Your task to perform on an android device: change your default location settings in chrome Image 0: 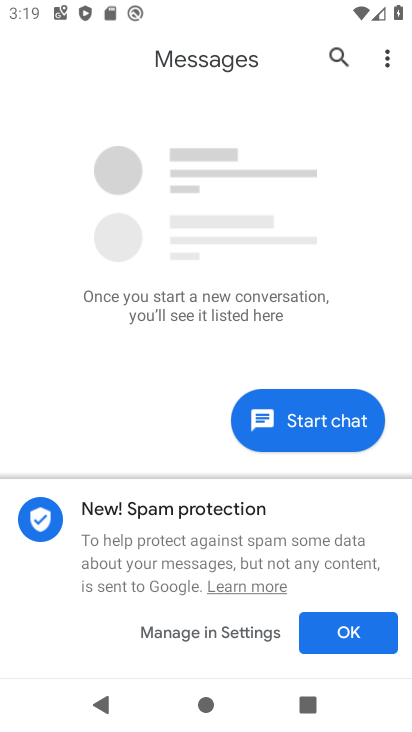
Step 0: press home button
Your task to perform on an android device: change your default location settings in chrome Image 1: 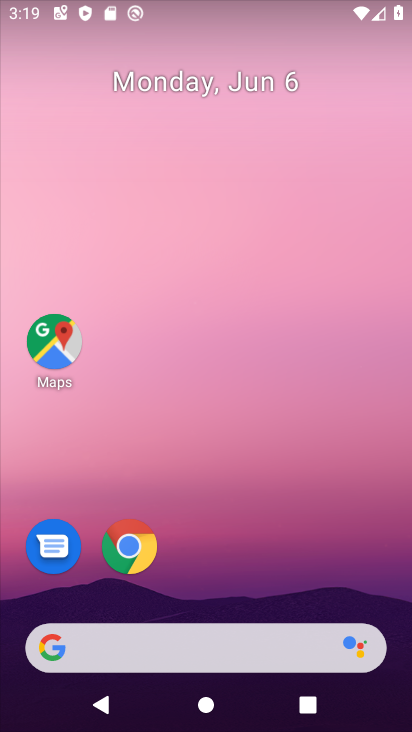
Step 1: click (143, 553)
Your task to perform on an android device: change your default location settings in chrome Image 2: 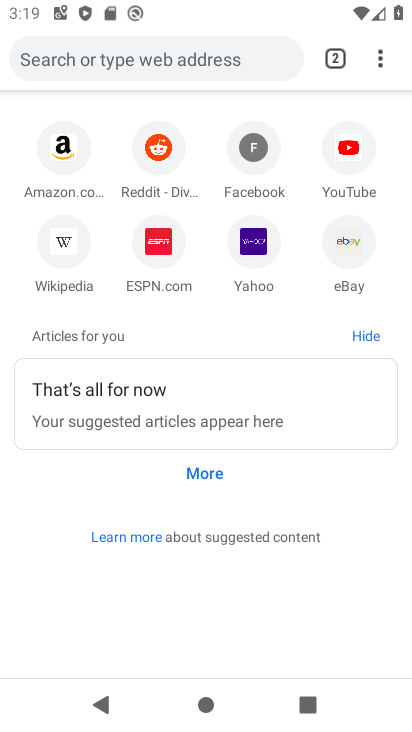
Step 2: press home button
Your task to perform on an android device: change your default location settings in chrome Image 3: 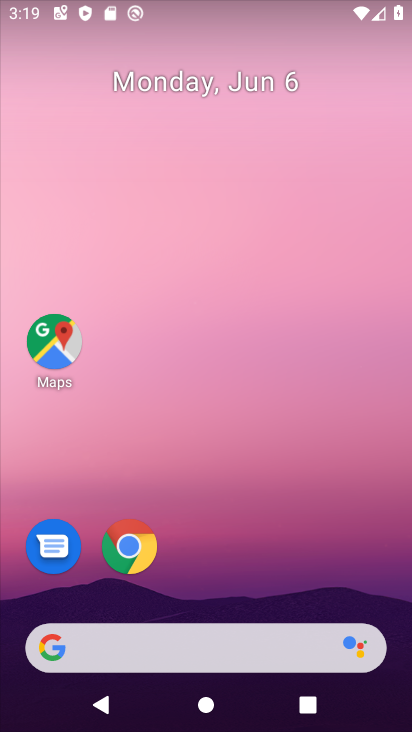
Step 3: click (245, 546)
Your task to perform on an android device: change your default location settings in chrome Image 4: 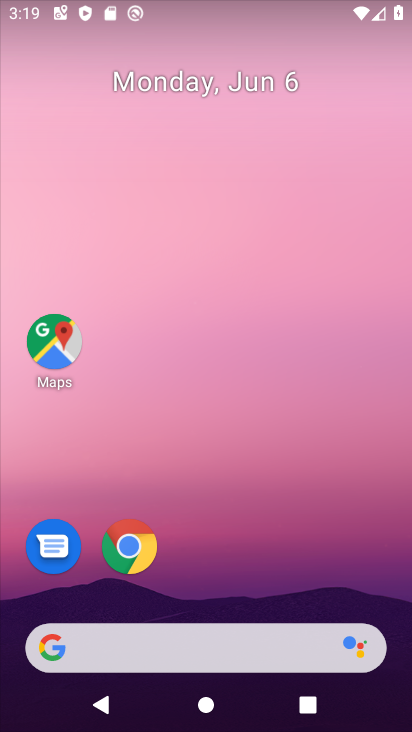
Step 4: click (124, 558)
Your task to perform on an android device: change your default location settings in chrome Image 5: 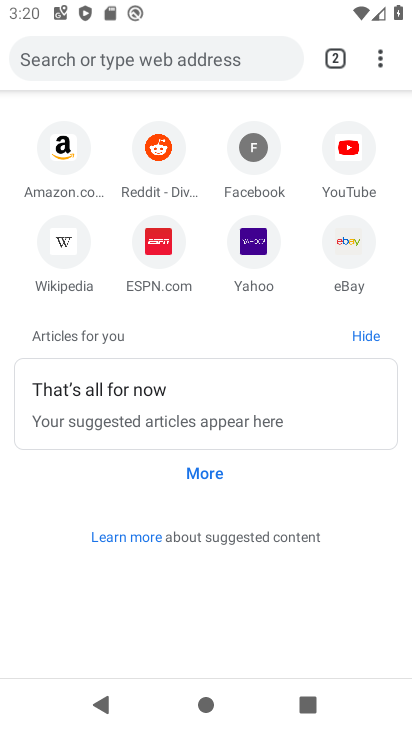
Step 5: click (387, 78)
Your task to perform on an android device: change your default location settings in chrome Image 6: 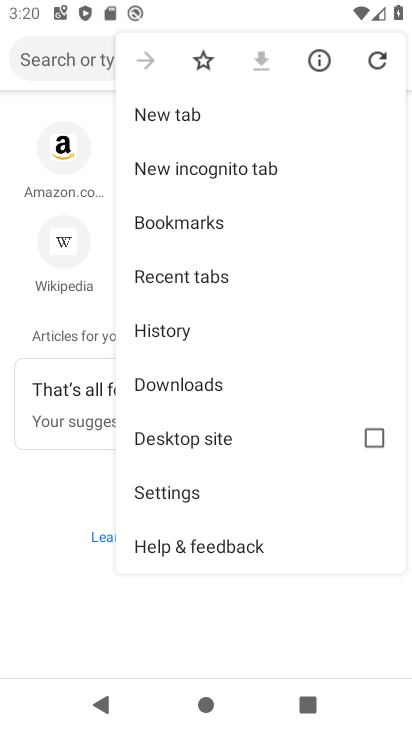
Step 6: task complete